Your task to perform on an android device: Go to Android settings Image 0: 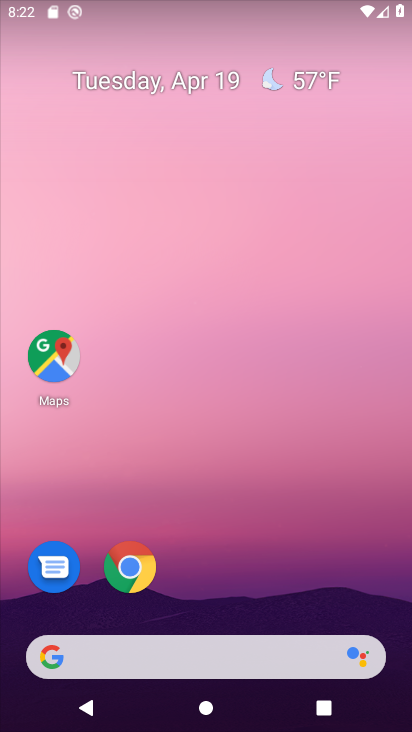
Step 0: drag from (264, 725) to (133, 5)
Your task to perform on an android device: Go to Android settings Image 1: 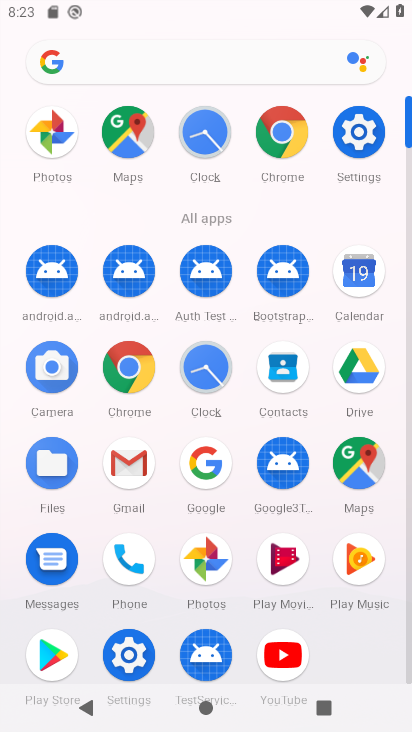
Step 1: click (357, 136)
Your task to perform on an android device: Go to Android settings Image 2: 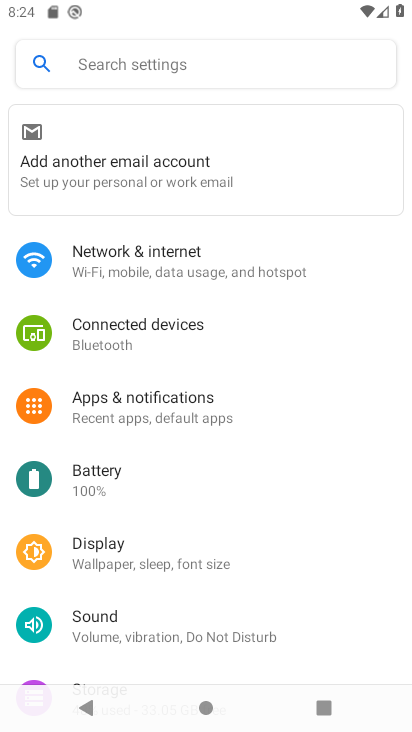
Step 2: task complete